Your task to perform on an android device: open app "Etsy: Buy & Sell Unique Items" (install if not already installed) and go to login screen Image 0: 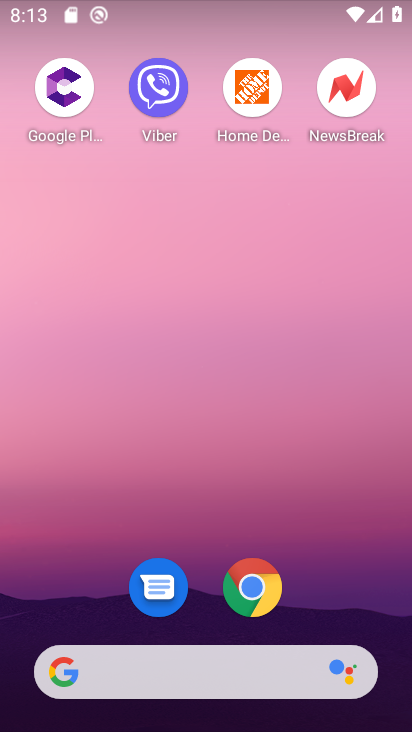
Step 0: drag from (390, 638) to (313, 95)
Your task to perform on an android device: open app "Etsy: Buy & Sell Unique Items" (install if not already installed) and go to login screen Image 1: 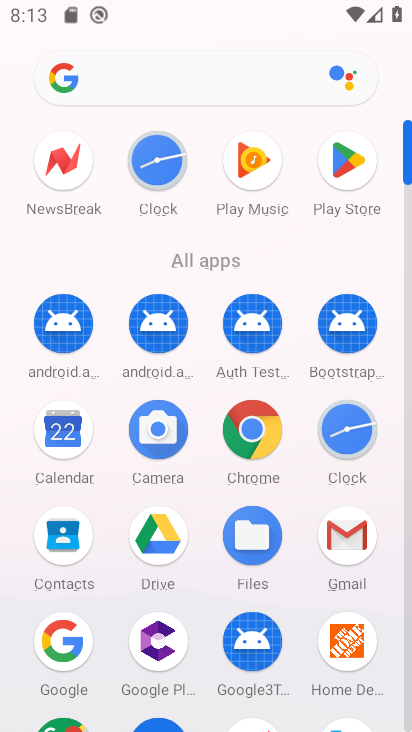
Step 1: click (351, 160)
Your task to perform on an android device: open app "Etsy: Buy & Sell Unique Items" (install if not already installed) and go to login screen Image 2: 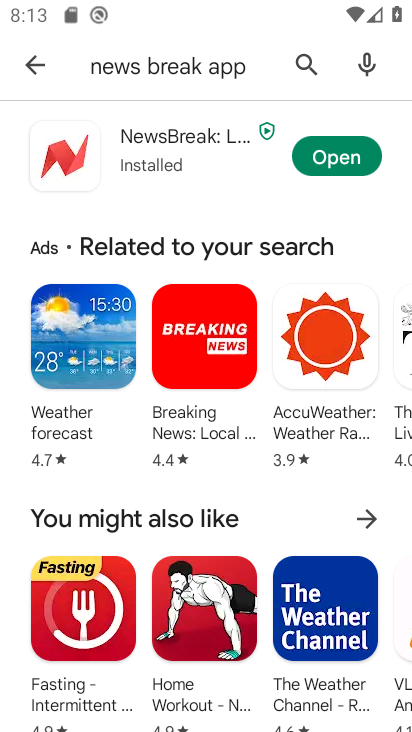
Step 2: click (303, 59)
Your task to perform on an android device: open app "Etsy: Buy & Sell Unique Items" (install if not already installed) and go to login screen Image 3: 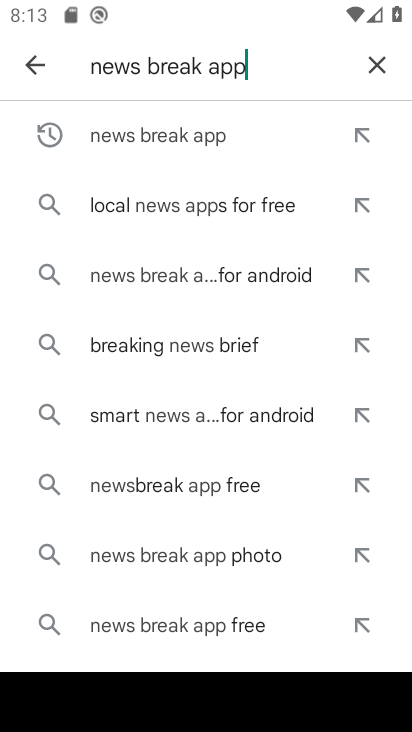
Step 3: click (378, 61)
Your task to perform on an android device: open app "Etsy: Buy & Sell Unique Items" (install if not already installed) and go to login screen Image 4: 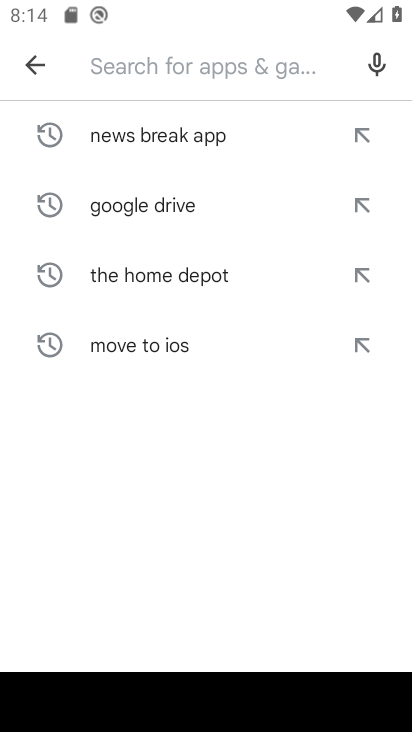
Step 4: type "etsy"
Your task to perform on an android device: open app "Etsy: Buy & Sell Unique Items" (install if not already installed) and go to login screen Image 5: 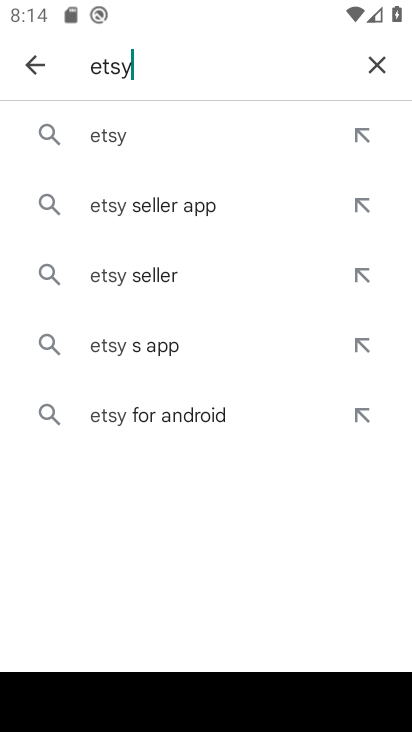
Step 5: click (111, 130)
Your task to perform on an android device: open app "Etsy: Buy & Sell Unique Items" (install if not already installed) and go to login screen Image 6: 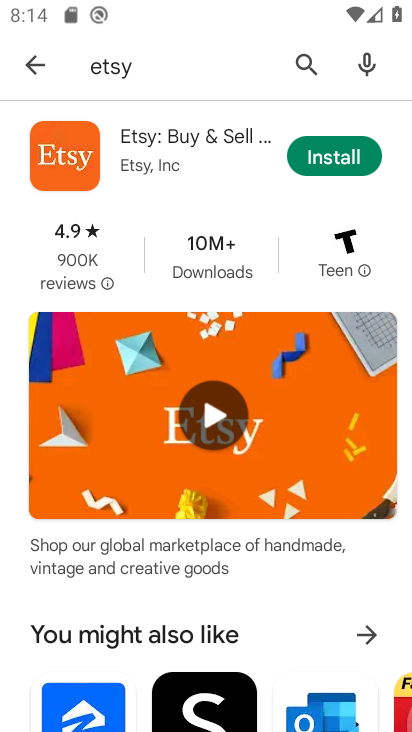
Step 6: click (338, 157)
Your task to perform on an android device: open app "Etsy: Buy & Sell Unique Items" (install if not already installed) and go to login screen Image 7: 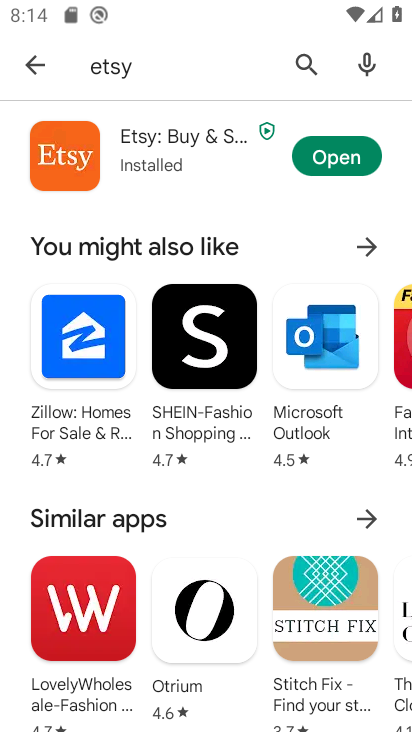
Step 7: click (145, 140)
Your task to perform on an android device: open app "Etsy: Buy & Sell Unique Items" (install if not already installed) and go to login screen Image 8: 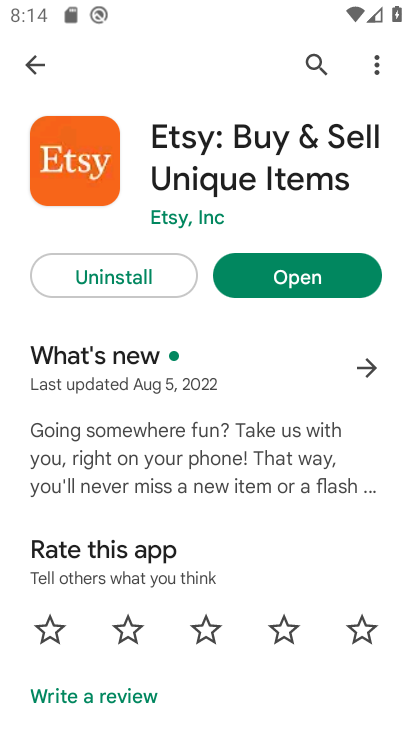
Step 8: click (298, 277)
Your task to perform on an android device: open app "Etsy: Buy & Sell Unique Items" (install if not already installed) and go to login screen Image 9: 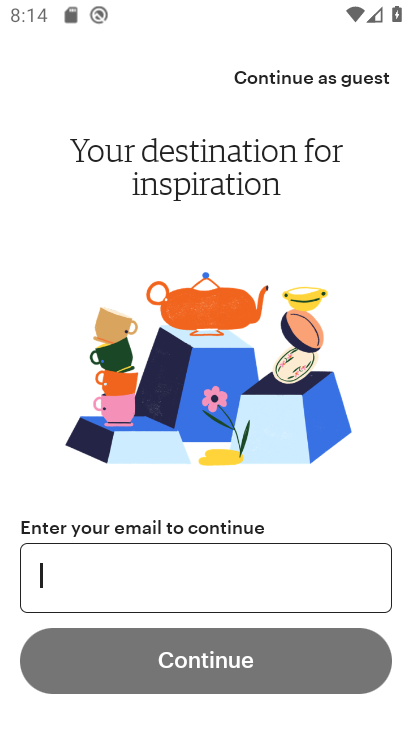
Step 9: task complete